Your task to perform on an android device: toggle improve location accuracy Image 0: 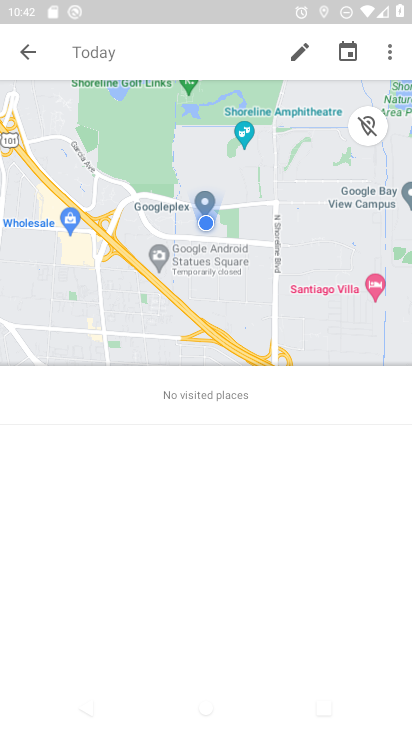
Step 0: press home button
Your task to perform on an android device: toggle improve location accuracy Image 1: 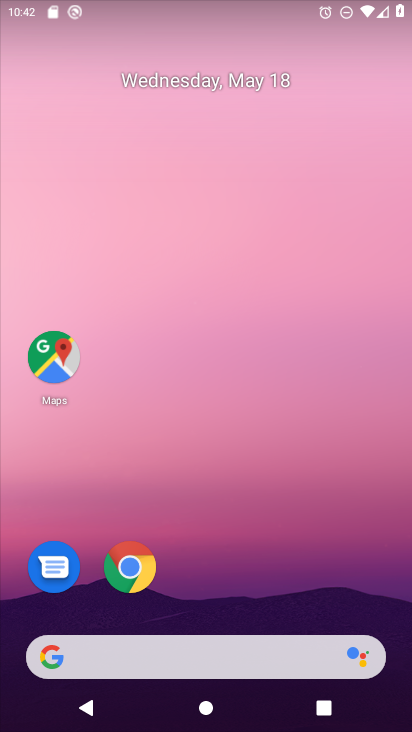
Step 1: drag from (238, 662) to (178, 158)
Your task to perform on an android device: toggle improve location accuracy Image 2: 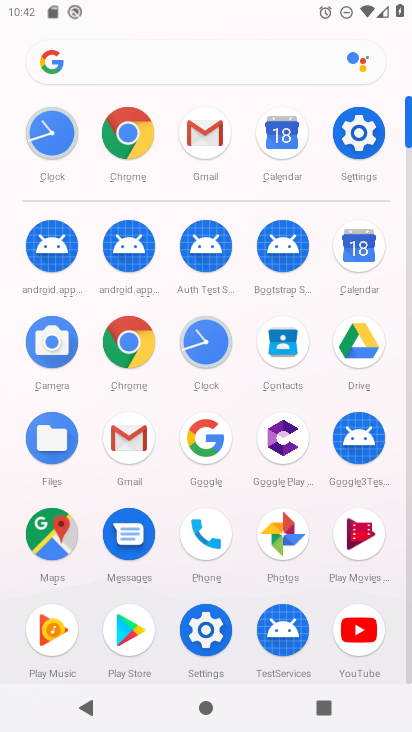
Step 2: click (350, 138)
Your task to perform on an android device: toggle improve location accuracy Image 3: 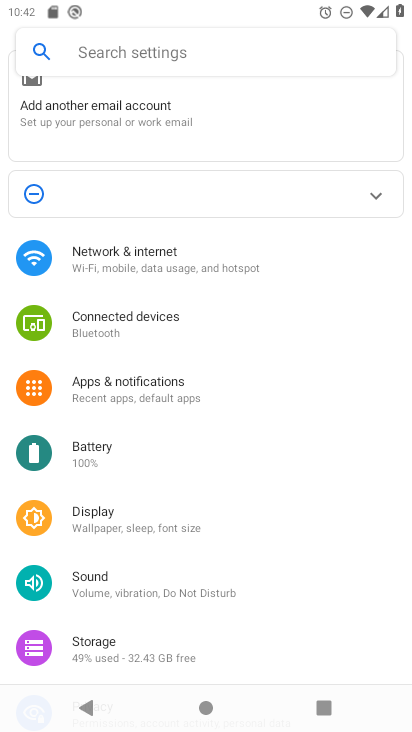
Step 3: click (156, 68)
Your task to perform on an android device: toggle improve location accuracy Image 4: 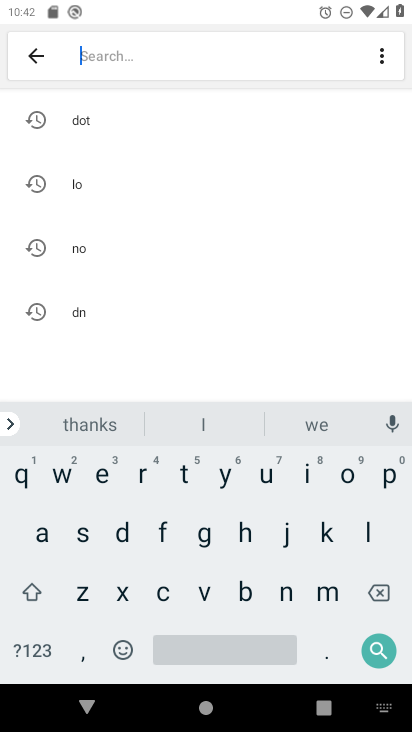
Step 4: click (124, 186)
Your task to perform on an android device: toggle improve location accuracy Image 5: 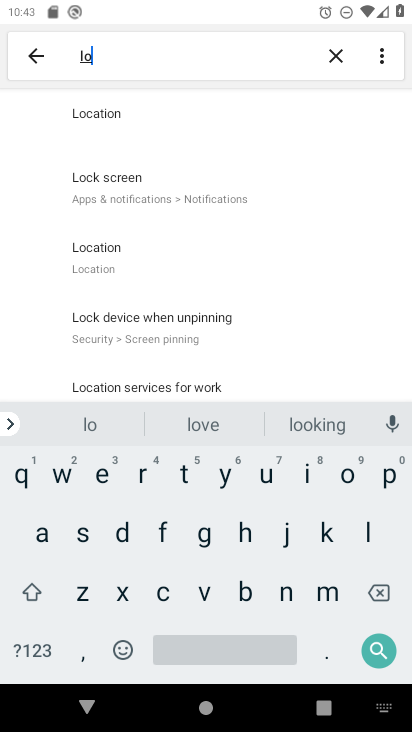
Step 5: click (124, 257)
Your task to perform on an android device: toggle improve location accuracy Image 6: 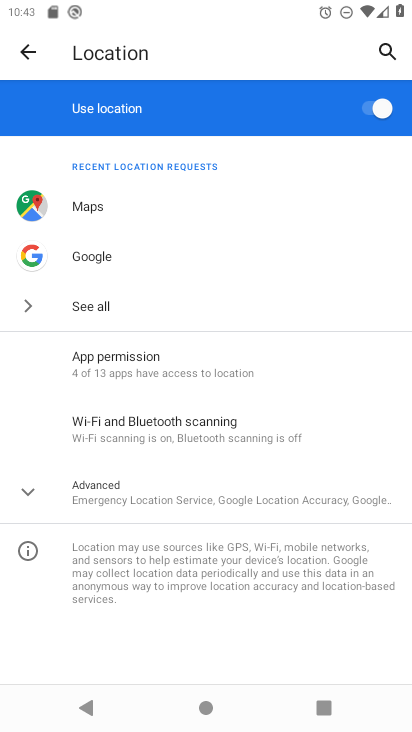
Step 6: click (43, 495)
Your task to perform on an android device: toggle improve location accuracy Image 7: 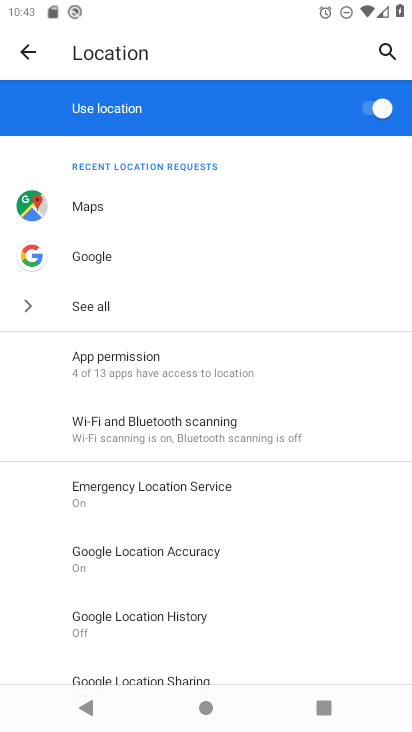
Step 7: click (160, 558)
Your task to perform on an android device: toggle improve location accuracy Image 8: 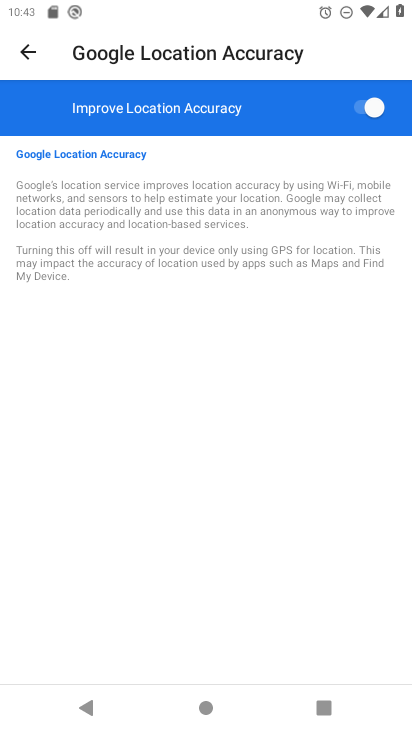
Step 8: task complete